Your task to perform on an android device: Open Wikipedia Image 0: 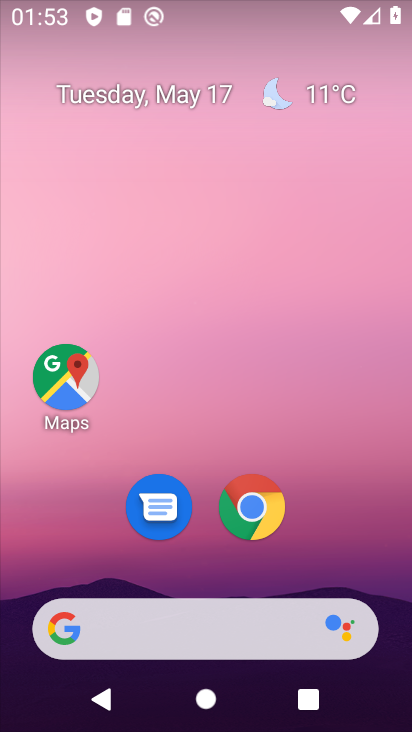
Step 0: click (249, 516)
Your task to perform on an android device: Open Wikipedia Image 1: 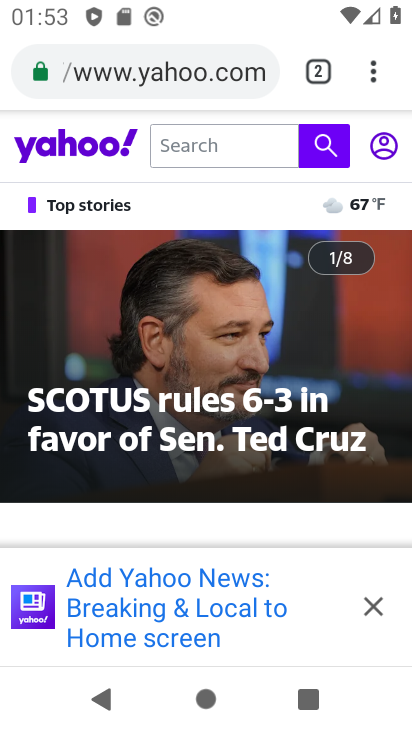
Step 1: click (386, 78)
Your task to perform on an android device: Open Wikipedia Image 2: 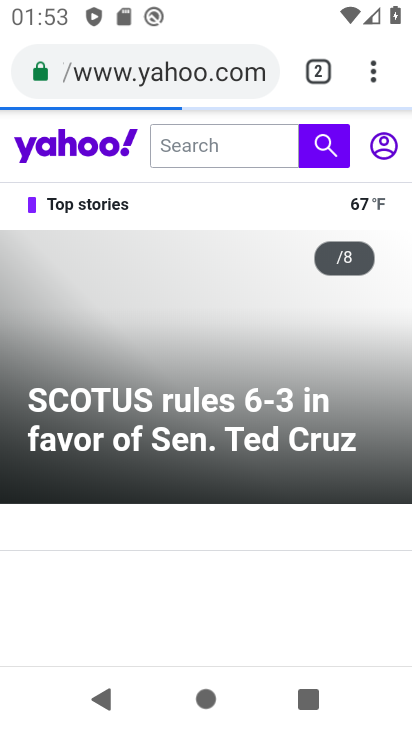
Step 2: click (377, 78)
Your task to perform on an android device: Open Wikipedia Image 3: 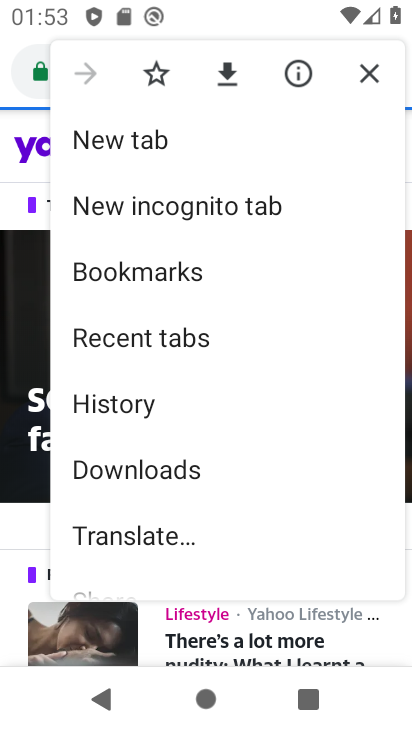
Step 3: click (132, 127)
Your task to perform on an android device: Open Wikipedia Image 4: 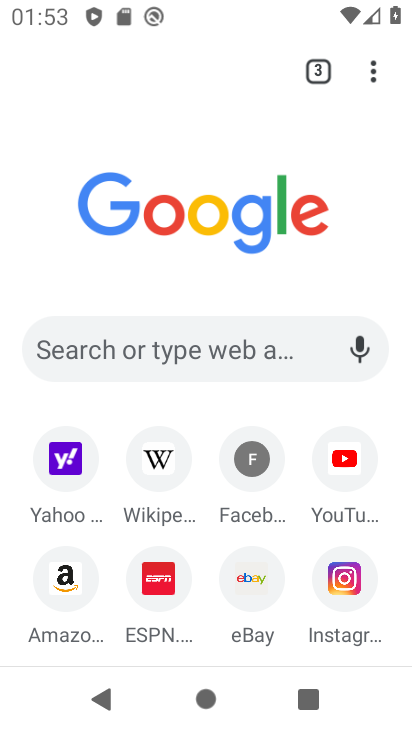
Step 4: click (165, 483)
Your task to perform on an android device: Open Wikipedia Image 5: 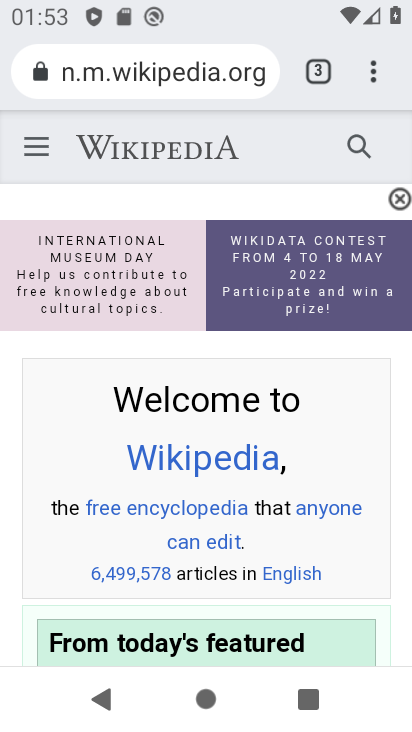
Step 5: task complete